Your task to perform on an android device: clear history in the chrome app Image 0: 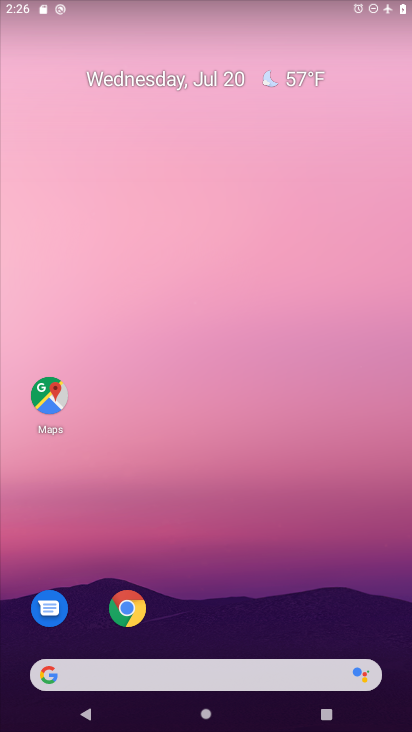
Step 0: click (141, 608)
Your task to perform on an android device: clear history in the chrome app Image 1: 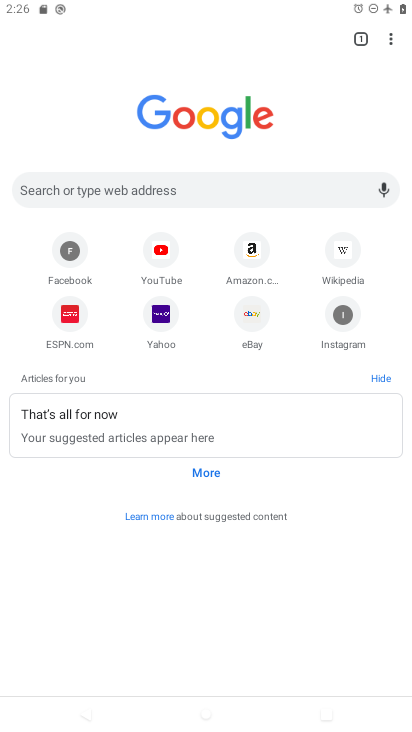
Step 1: click (387, 37)
Your task to perform on an android device: clear history in the chrome app Image 2: 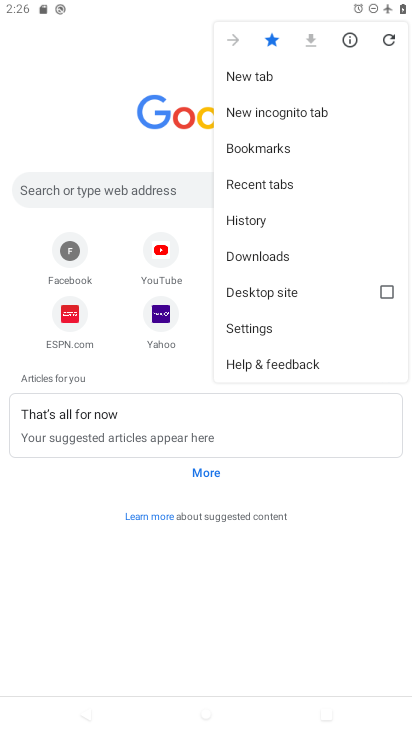
Step 2: click (273, 224)
Your task to perform on an android device: clear history in the chrome app Image 3: 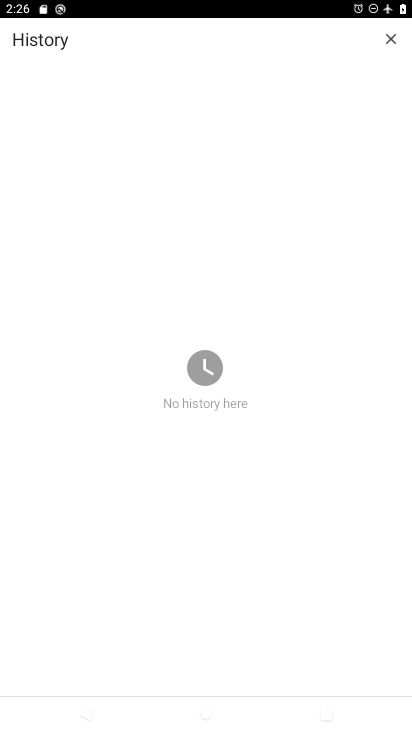
Step 3: task complete